Your task to perform on an android device: When is my next appointment? Image 0: 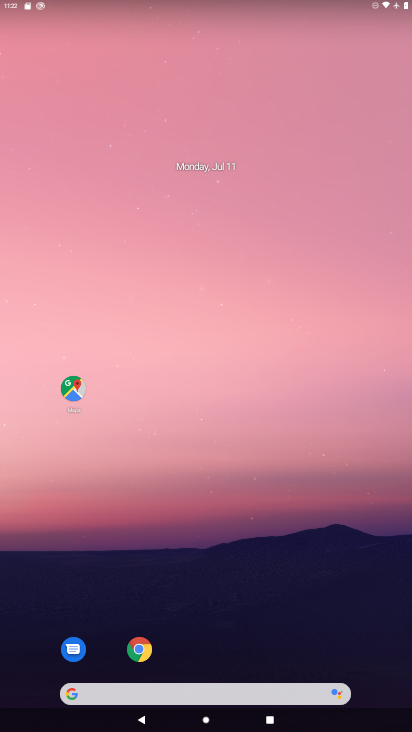
Step 0: drag from (322, 489) to (291, 46)
Your task to perform on an android device: When is my next appointment? Image 1: 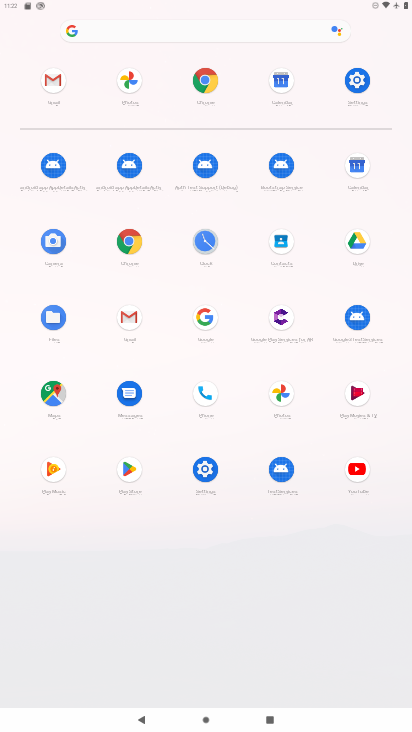
Step 1: click (361, 168)
Your task to perform on an android device: When is my next appointment? Image 2: 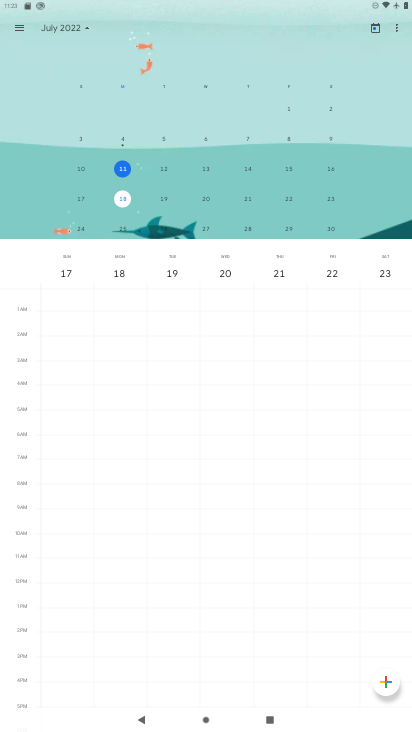
Step 2: click (166, 169)
Your task to perform on an android device: When is my next appointment? Image 3: 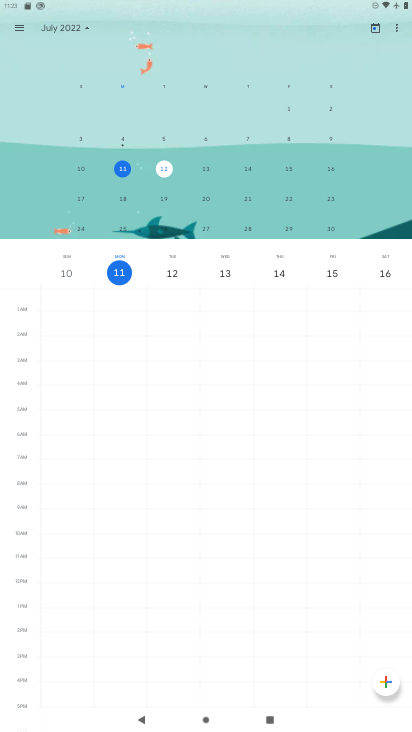
Step 3: click (175, 273)
Your task to perform on an android device: When is my next appointment? Image 4: 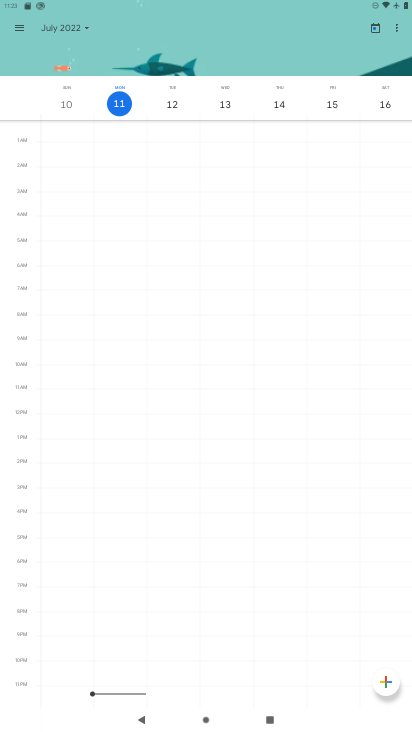
Step 4: task complete